Your task to perform on an android device: Show me recent news Image 0: 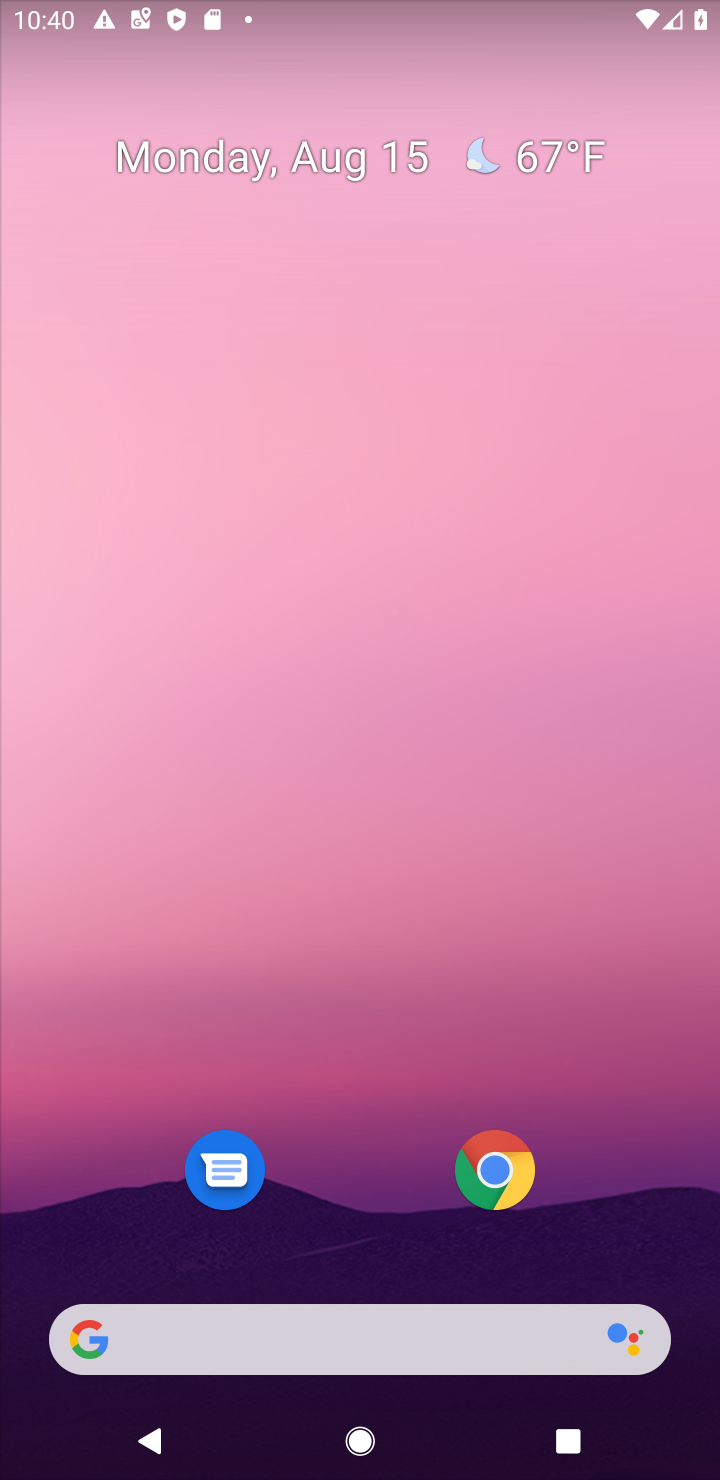
Step 0: press home button
Your task to perform on an android device: Show me recent news Image 1: 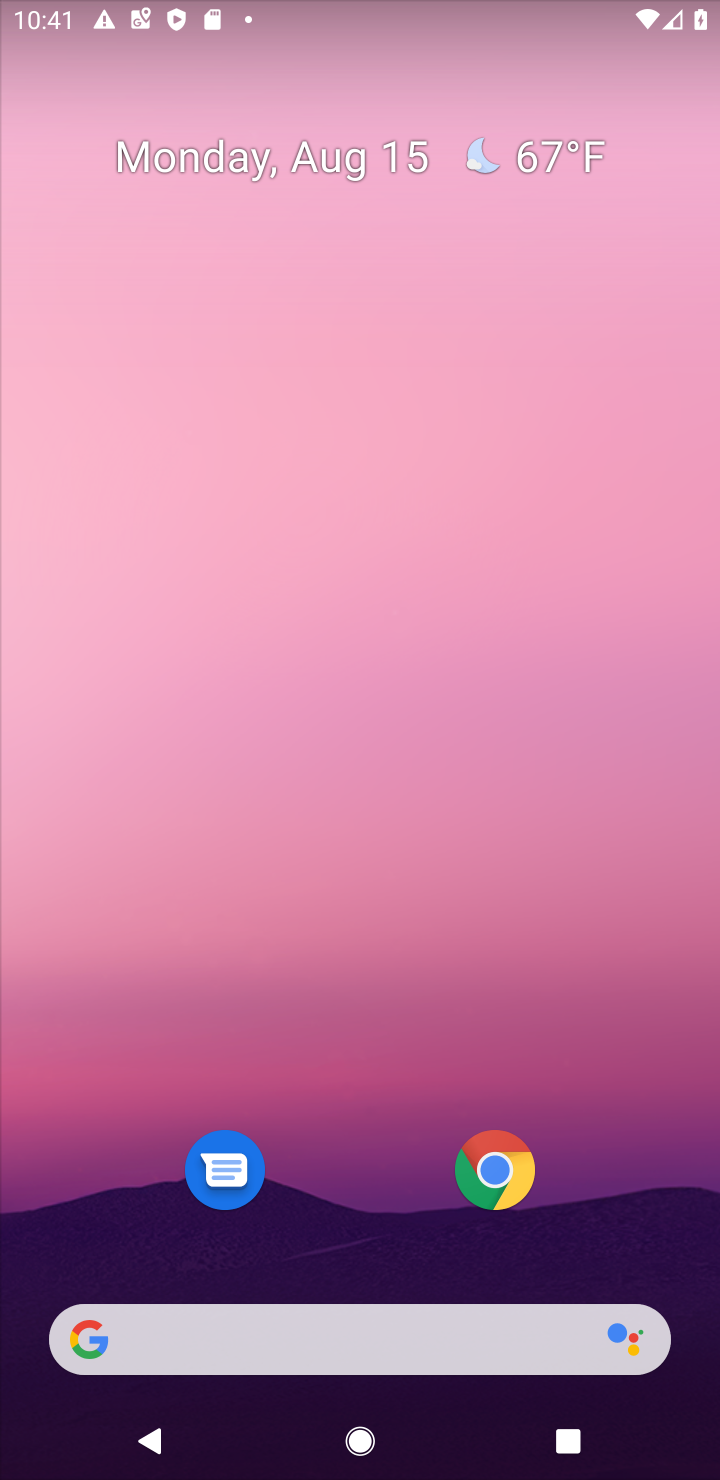
Step 1: drag from (24, 716) to (689, 796)
Your task to perform on an android device: Show me recent news Image 2: 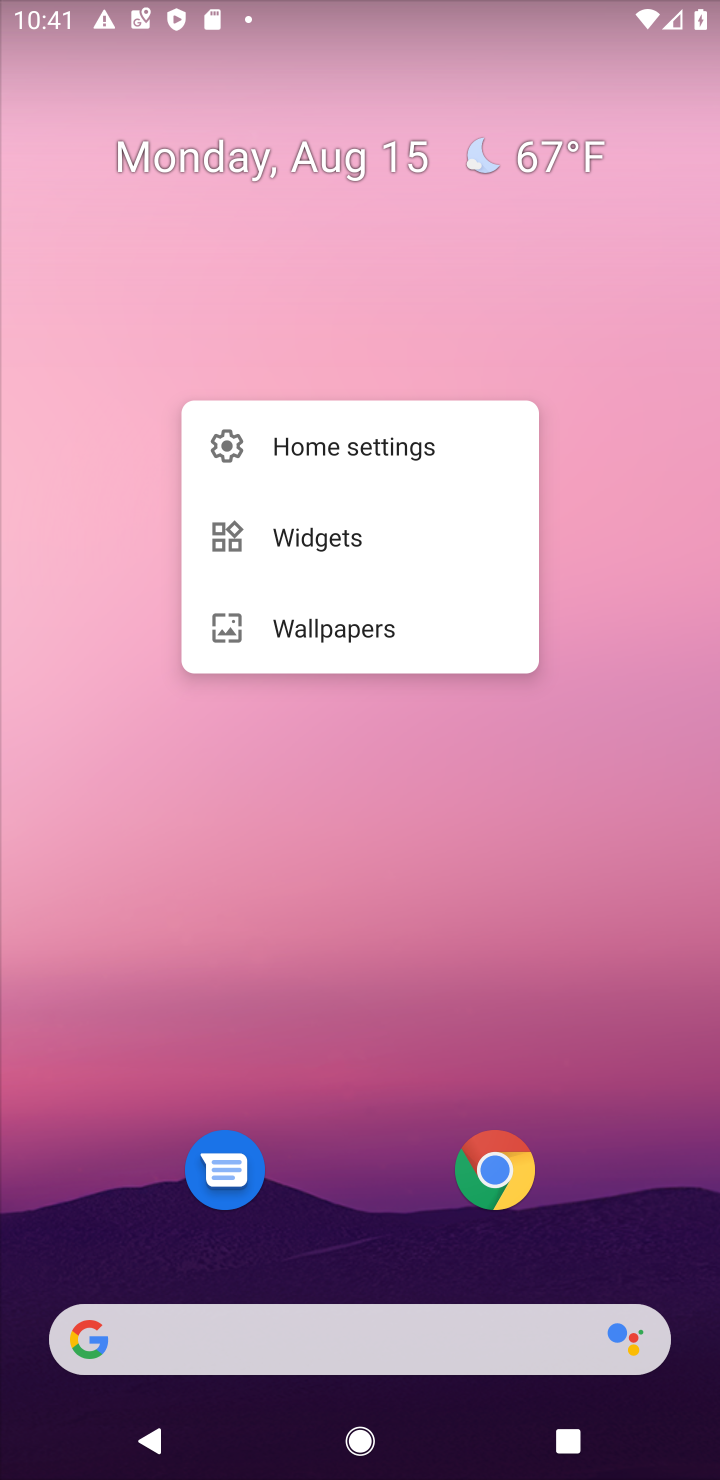
Step 2: click (111, 855)
Your task to perform on an android device: Show me recent news Image 3: 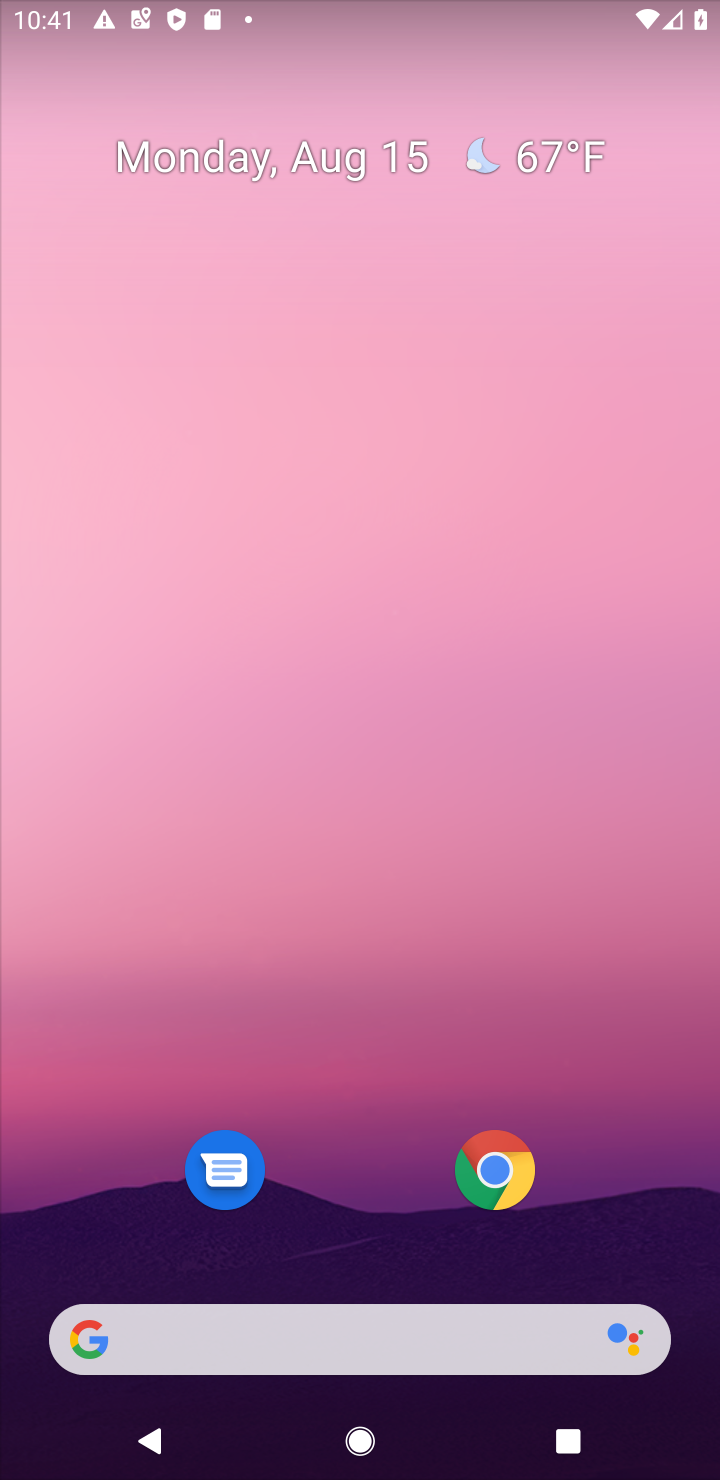
Step 3: task complete